Your task to perform on an android device: Open the settings Image 0: 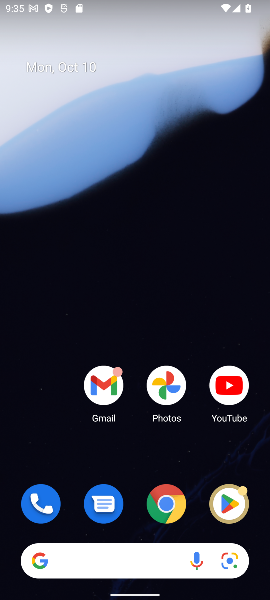
Step 0: click (197, 141)
Your task to perform on an android device: Open the settings Image 1: 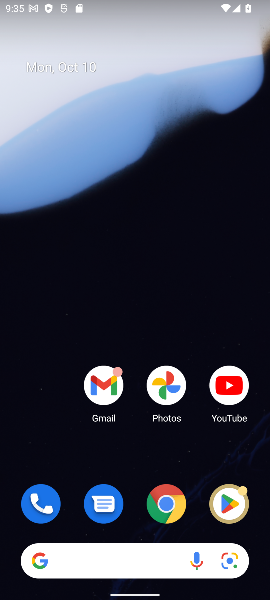
Step 1: drag from (192, 474) to (186, 102)
Your task to perform on an android device: Open the settings Image 2: 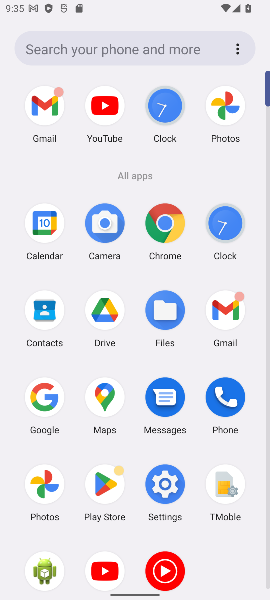
Step 2: click (166, 479)
Your task to perform on an android device: Open the settings Image 3: 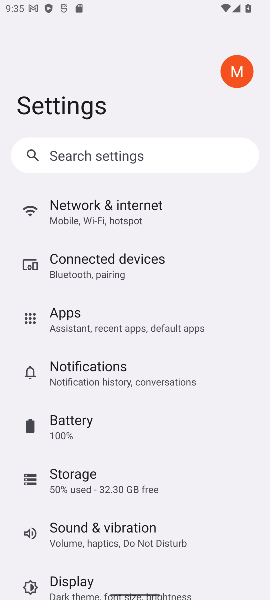
Step 3: task complete